Your task to perform on an android device: clear history in the chrome app Image 0: 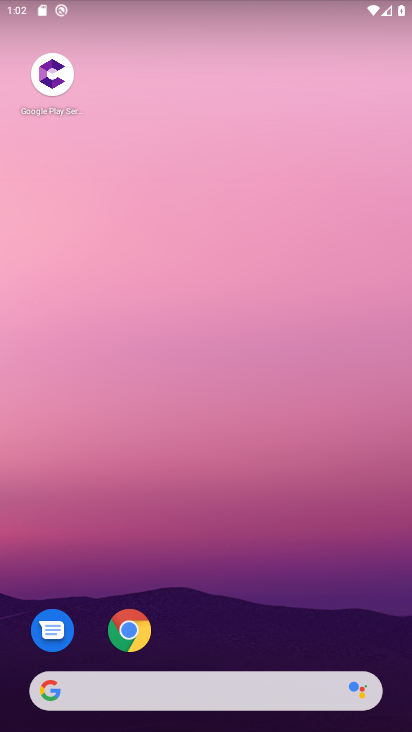
Step 0: click (129, 631)
Your task to perform on an android device: clear history in the chrome app Image 1: 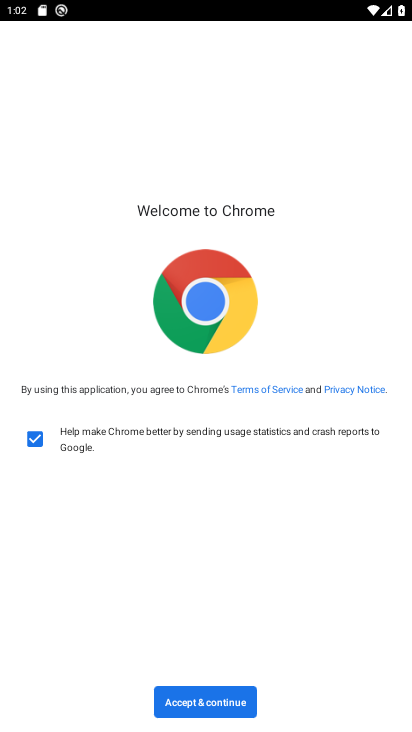
Step 1: click (199, 702)
Your task to perform on an android device: clear history in the chrome app Image 2: 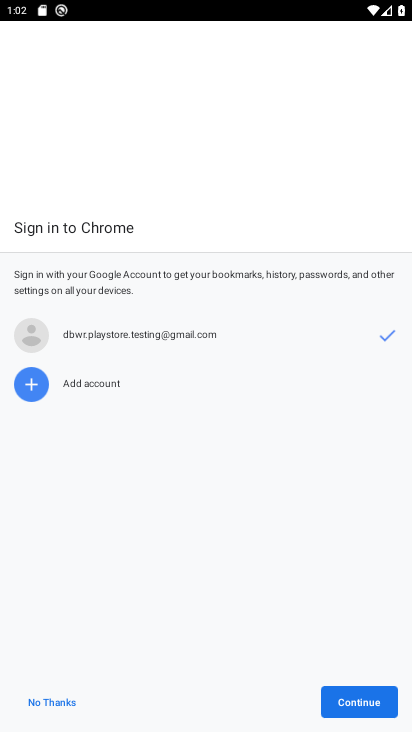
Step 2: click (347, 707)
Your task to perform on an android device: clear history in the chrome app Image 3: 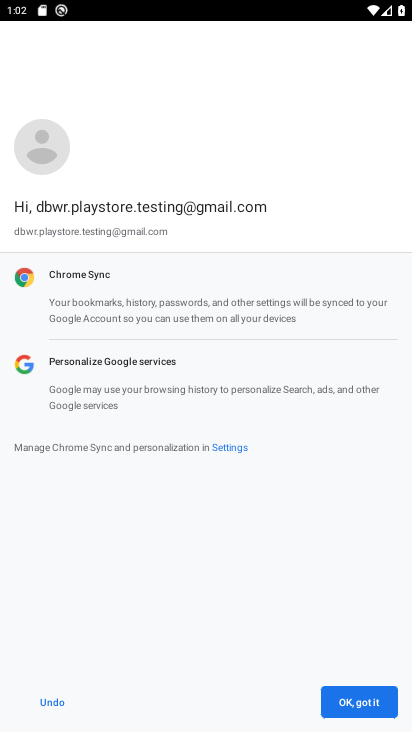
Step 3: click (347, 707)
Your task to perform on an android device: clear history in the chrome app Image 4: 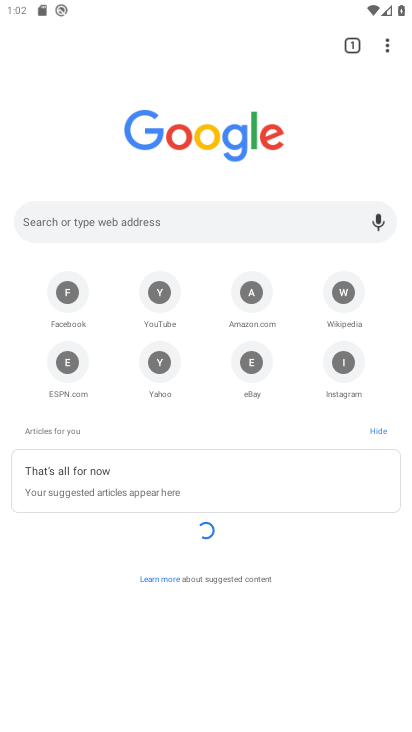
Step 4: click (385, 44)
Your task to perform on an android device: clear history in the chrome app Image 5: 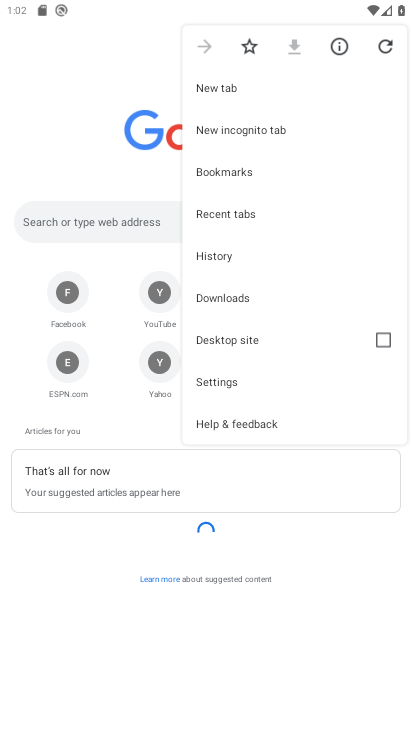
Step 5: click (245, 255)
Your task to perform on an android device: clear history in the chrome app Image 6: 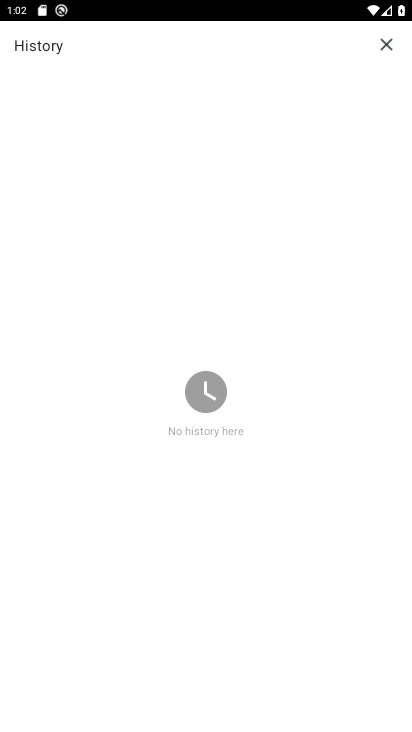
Step 6: task complete